Your task to perform on an android device: Show me popular videos on Youtube Image 0: 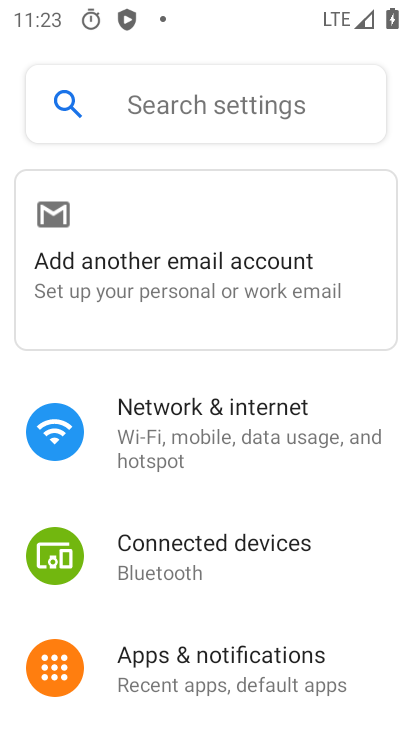
Step 0: press home button
Your task to perform on an android device: Show me popular videos on Youtube Image 1: 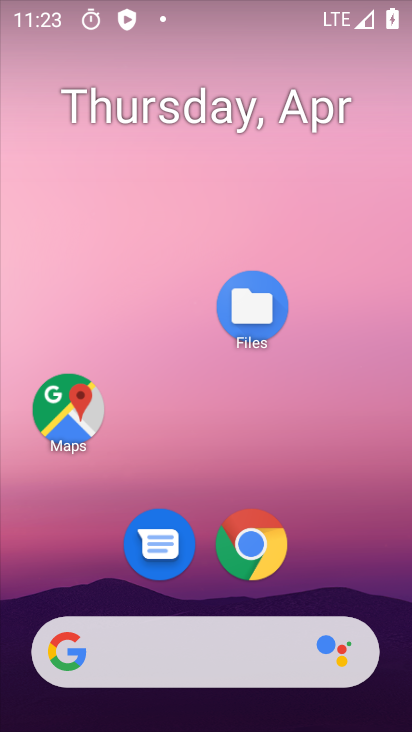
Step 1: drag from (211, 486) to (119, 98)
Your task to perform on an android device: Show me popular videos on Youtube Image 2: 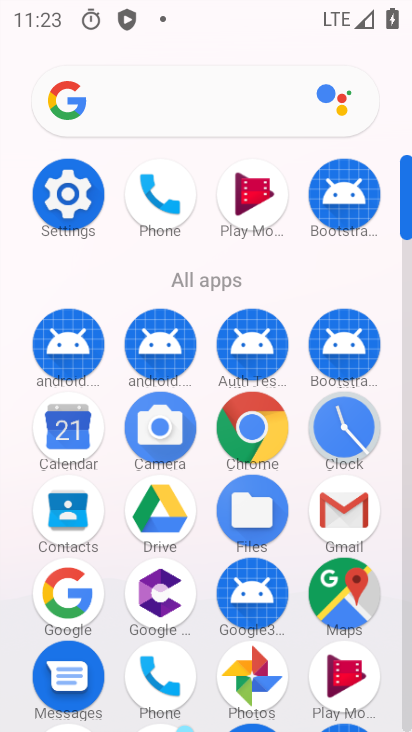
Step 2: drag from (300, 541) to (290, 272)
Your task to perform on an android device: Show me popular videos on Youtube Image 3: 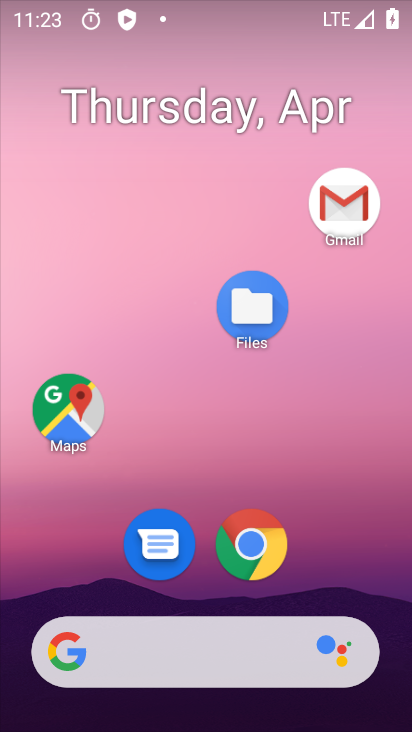
Step 3: drag from (229, 418) to (217, 80)
Your task to perform on an android device: Show me popular videos on Youtube Image 4: 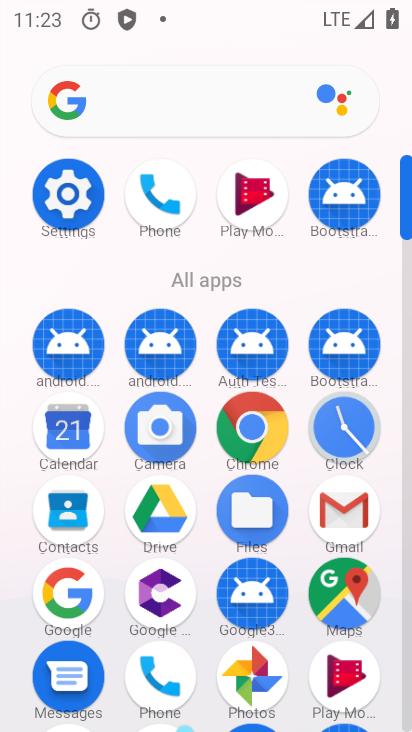
Step 4: drag from (206, 302) to (201, 76)
Your task to perform on an android device: Show me popular videos on Youtube Image 5: 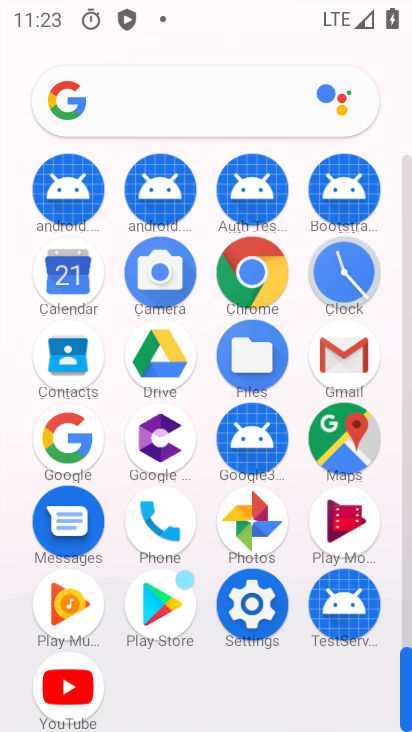
Step 5: click (59, 701)
Your task to perform on an android device: Show me popular videos on Youtube Image 6: 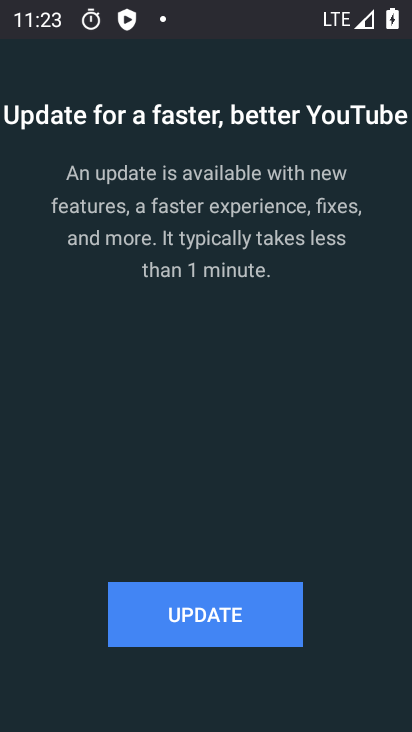
Step 6: click (220, 616)
Your task to perform on an android device: Show me popular videos on Youtube Image 7: 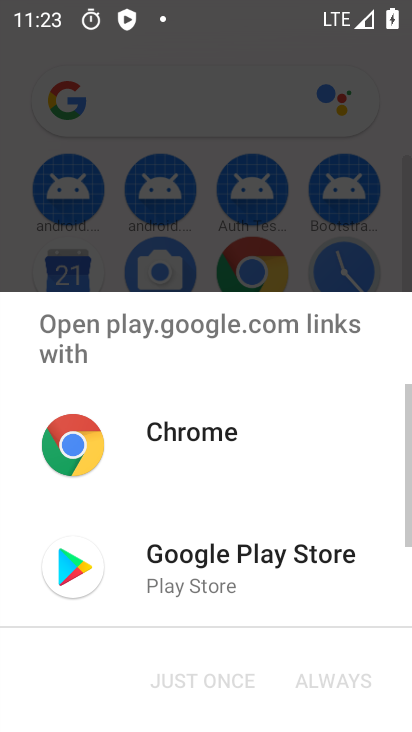
Step 7: click (209, 571)
Your task to perform on an android device: Show me popular videos on Youtube Image 8: 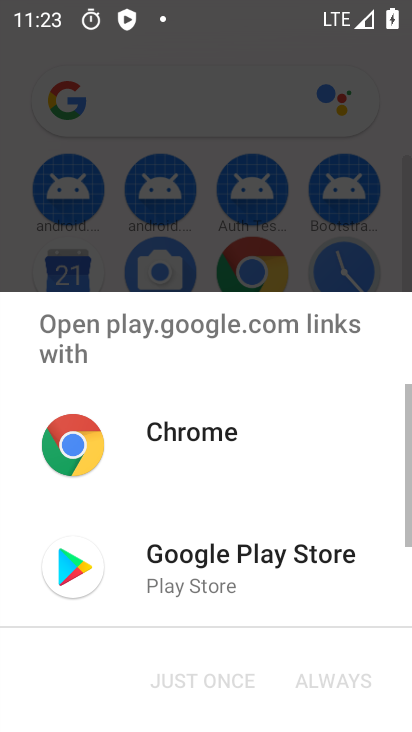
Step 8: click (208, 571)
Your task to perform on an android device: Show me popular videos on Youtube Image 9: 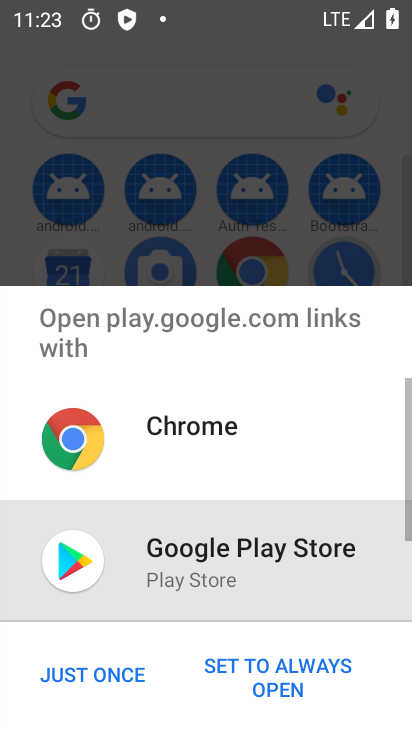
Step 9: click (208, 571)
Your task to perform on an android device: Show me popular videos on Youtube Image 10: 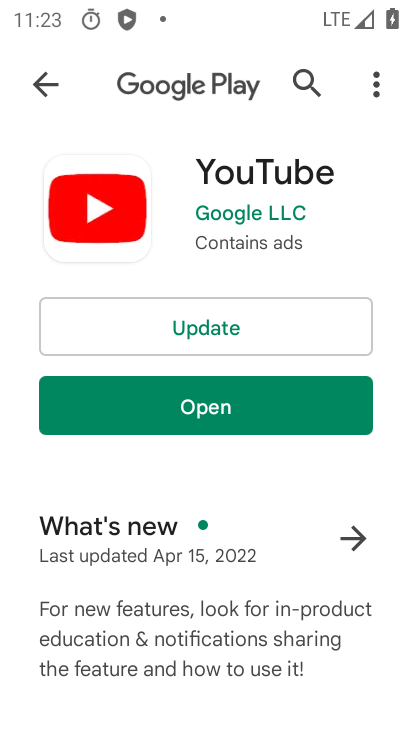
Step 10: click (235, 318)
Your task to perform on an android device: Show me popular videos on Youtube Image 11: 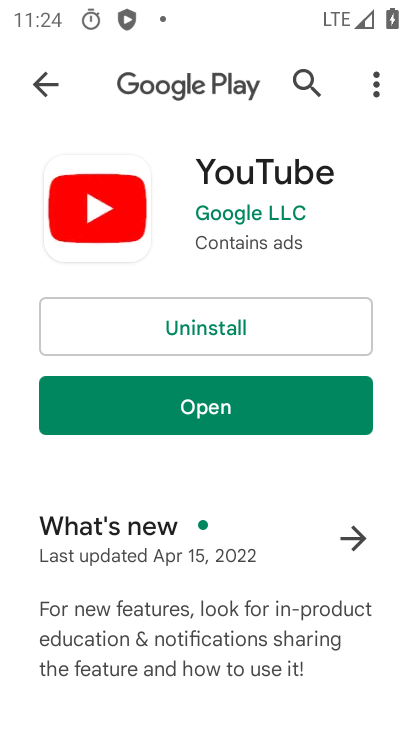
Step 11: click (243, 410)
Your task to perform on an android device: Show me popular videos on Youtube Image 12: 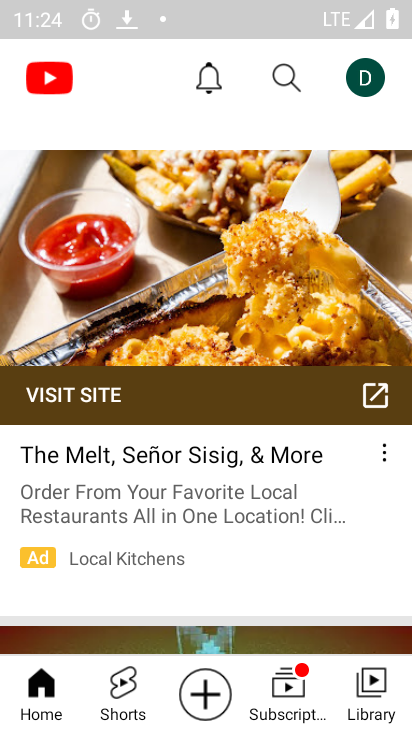
Step 12: drag from (166, 337) to (277, 633)
Your task to perform on an android device: Show me popular videos on Youtube Image 13: 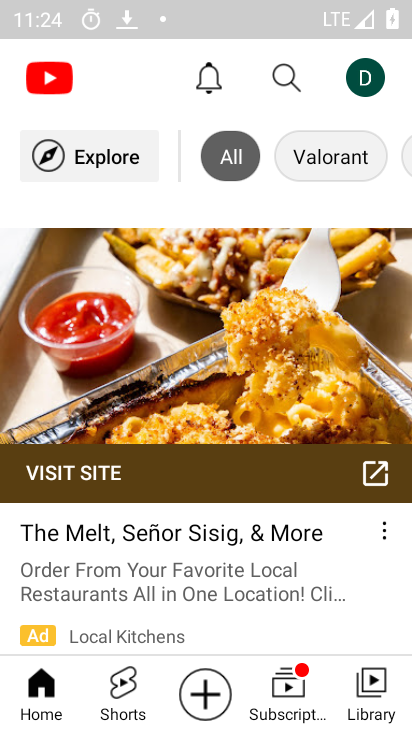
Step 13: click (108, 170)
Your task to perform on an android device: Show me popular videos on Youtube Image 14: 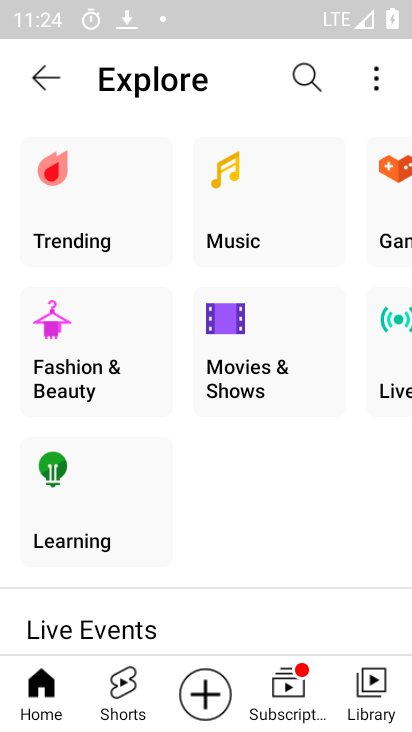
Step 14: click (121, 210)
Your task to perform on an android device: Show me popular videos on Youtube Image 15: 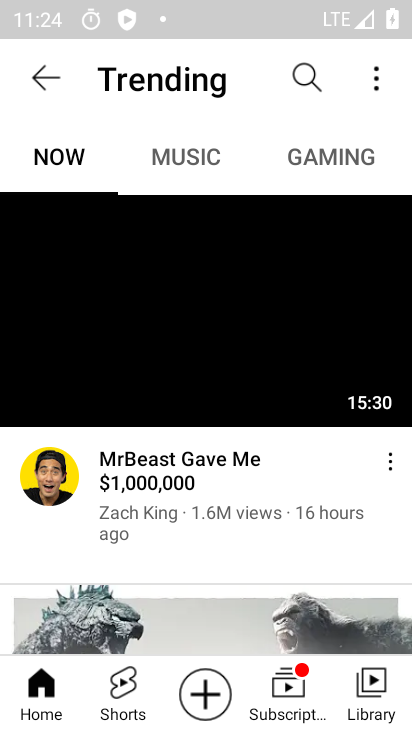
Step 15: task complete